Your task to perform on an android device: Do I have any events this weekend? Image 0: 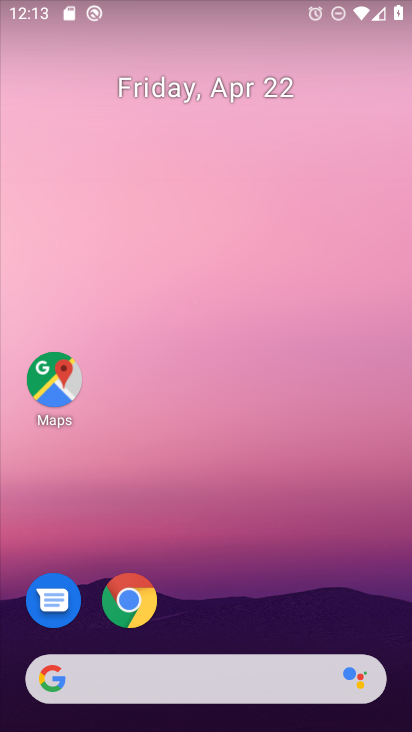
Step 0: drag from (253, 599) to (223, 20)
Your task to perform on an android device: Do I have any events this weekend? Image 1: 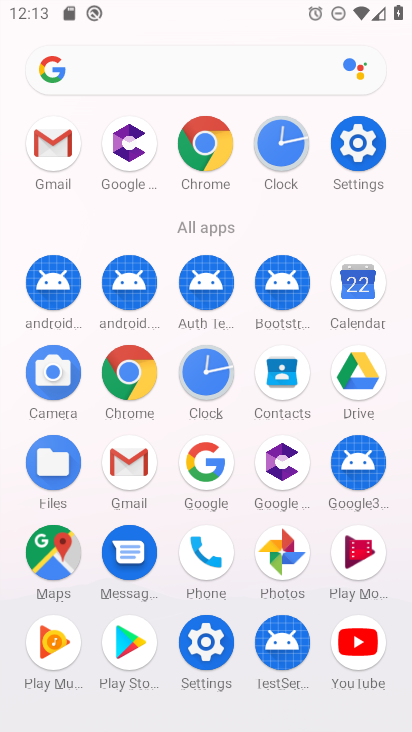
Step 1: click (356, 283)
Your task to perform on an android device: Do I have any events this weekend? Image 2: 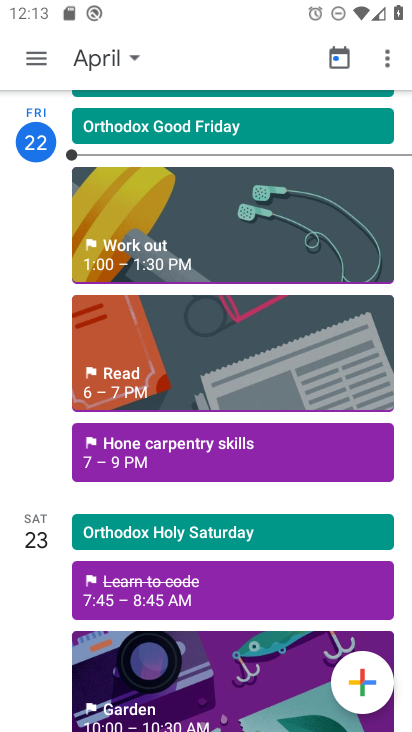
Step 2: click (130, 53)
Your task to perform on an android device: Do I have any events this weekend? Image 3: 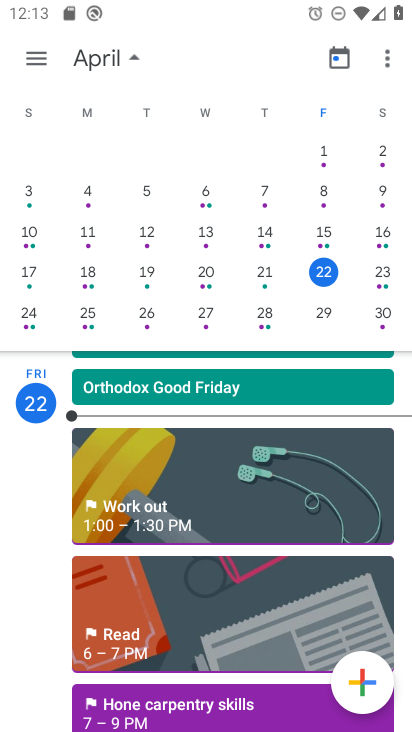
Step 3: click (381, 273)
Your task to perform on an android device: Do I have any events this weekend? Image 4: 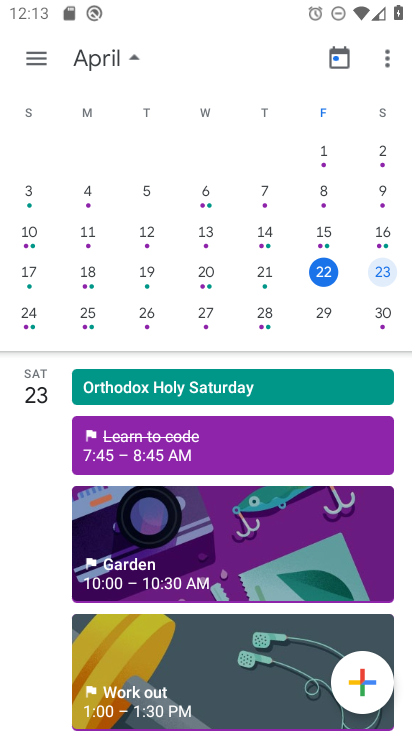
Step 4: task complete